Your task to perform on an android device: turn on javascript in the chrome app Image 0: 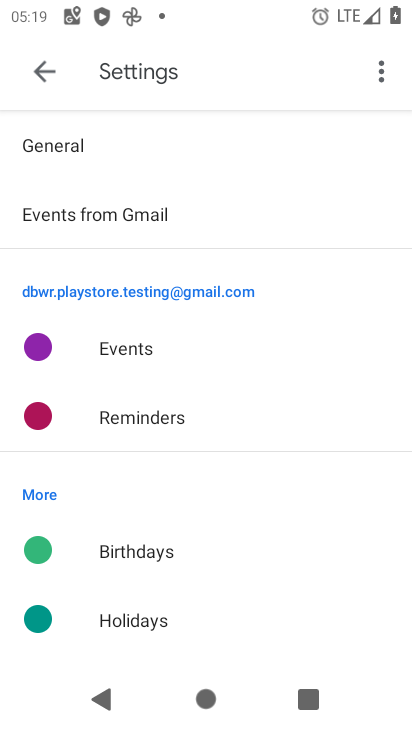
Step 0: press home button
Your task to perform on an android device: turn on javascript in the chrome app Image 1: 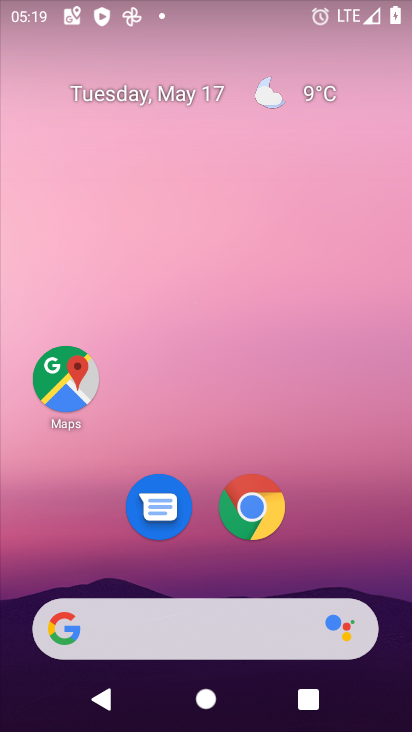
Step 1: drag from (316, 540) to (191, 39)
Your task to perform on an android device: turn on javascript in the chrome app Image 2: 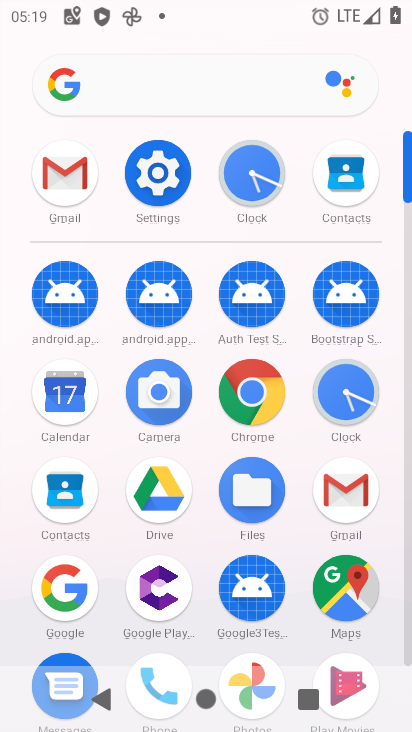
Step 2: click (261, 388)
Your task to perform on an android device: turn on javascript in the chrome app Image 3: 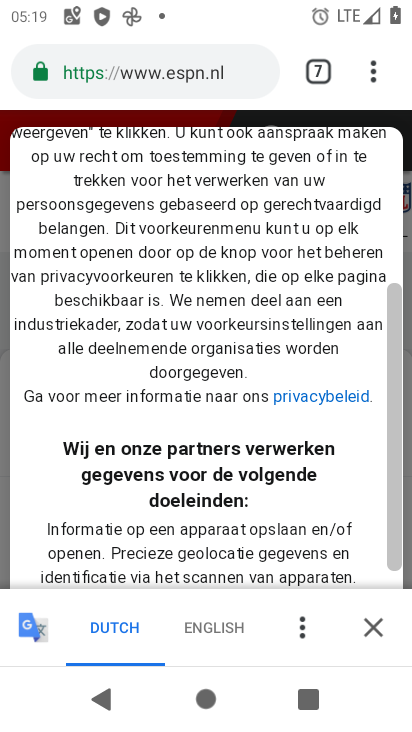
Step 3: click (373, 74)
Your task to perform on an android device: turn on javascript in the chrome app Image 4: 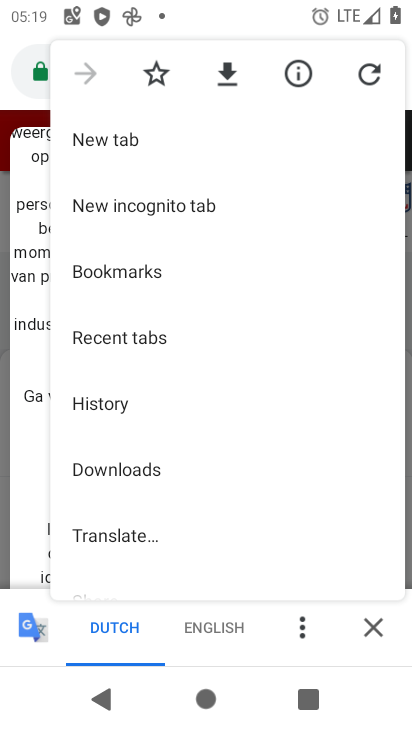
Step 4: drag from (215, 530) to (210, 149)
Your task to perform on an android device: turn on javascript in the chrome app Image 5: 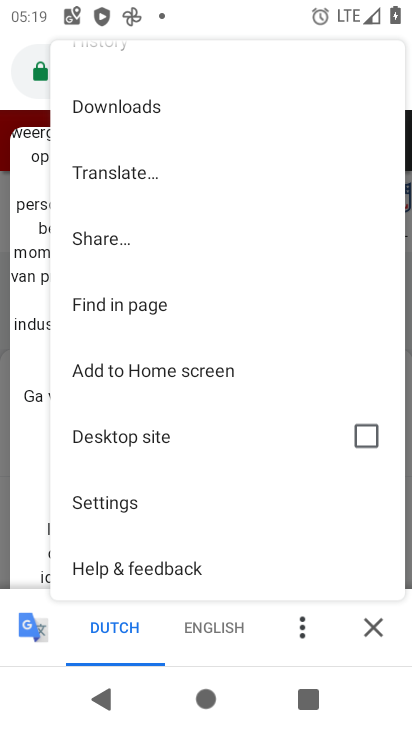
Step 5: click (175, 501)
Your task to perform on an android device: turn on javascript in the chrome app Image 6: 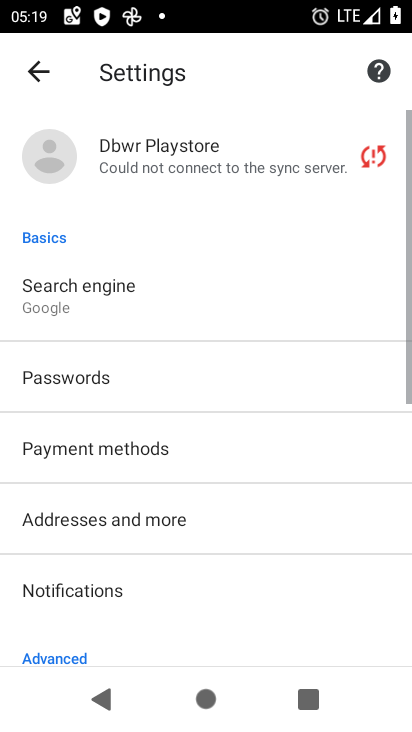
Step 6: drag from (245, 506) to (238, 85)
Your task to perform on an android device: turn on javascript in the chrome app Image 7: 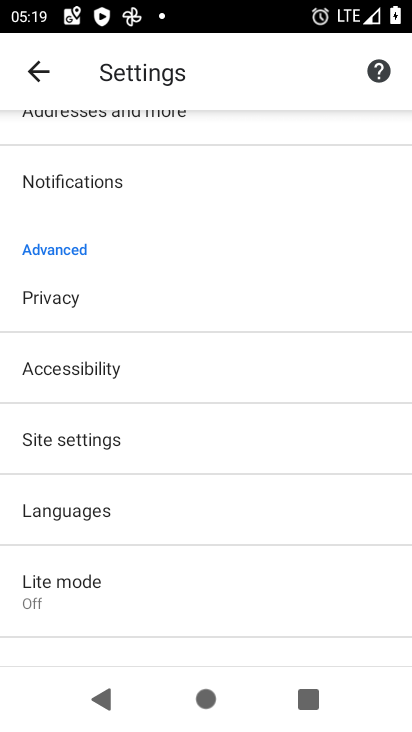
Step 7: click (139, 439)
Your task to perform on an android device: turn on javascript in the chrome app Image 8: 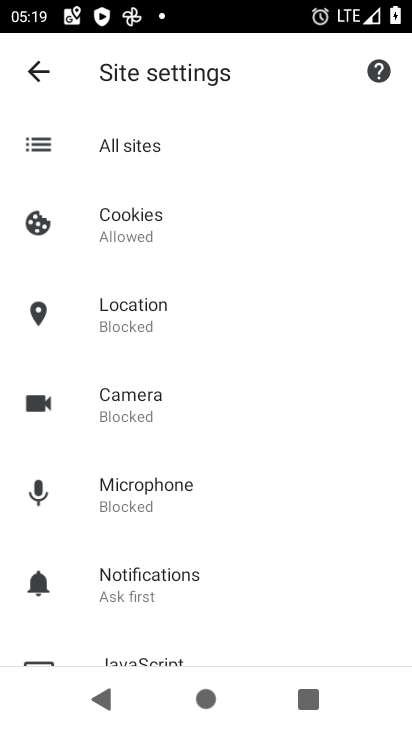
Step 8: drag from (192, 541) to (188, 120)
Your task to perform on an android device: turn on javascript in the chrome app Image 9: 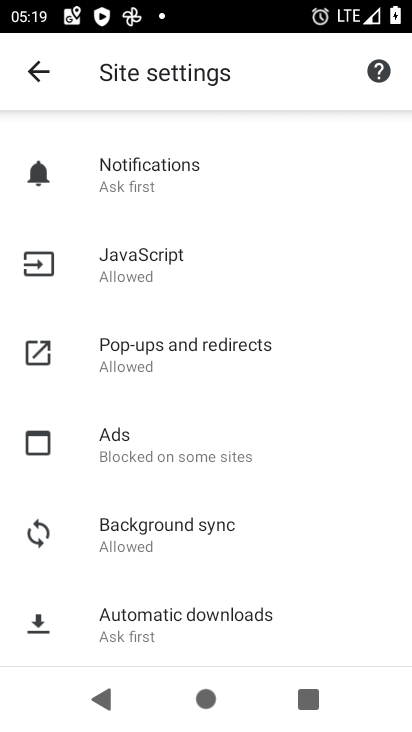
Step 9: click (191, 263)
Your task to perform on an android device: turn on javascript in the chrome app Image 10: 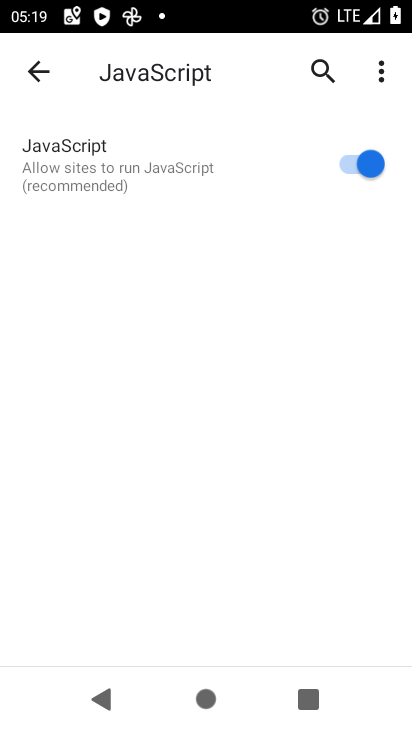
Step 10: task complete